Your task to perform on an android device: Go to eBay Image 0: 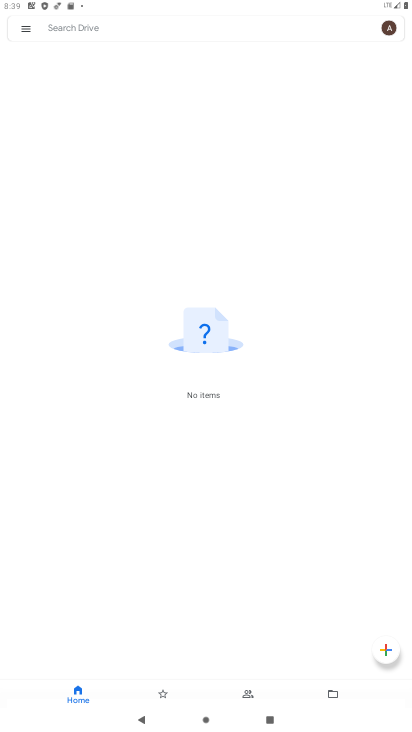
Step 0: press home button
Your task to perform on an android device: Go to eBay Image 1: 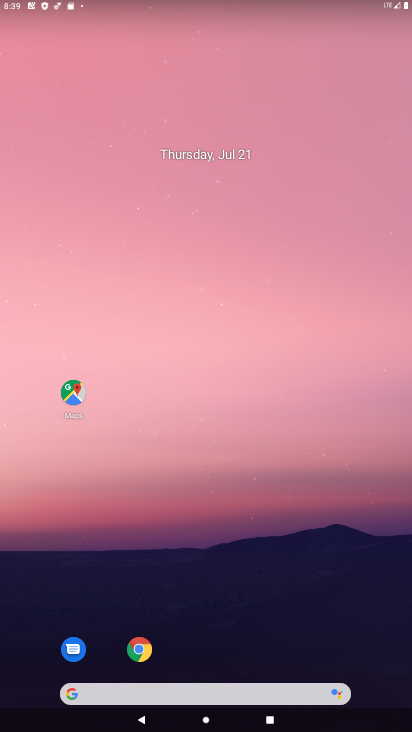
Step 1: drag from (201, 665) to (227, 103)
Your task to perform on an android device: Go to eBay Image 2: 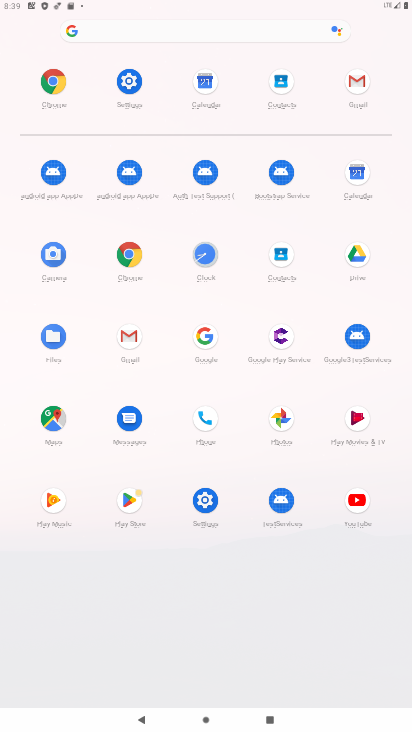
Step 2: click (141, 258)
Your task to perform on an android device: Go to eBay Image 3: 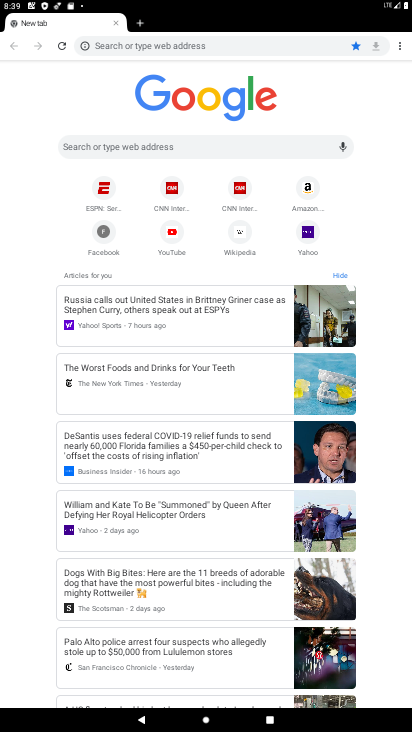
Step 3: click (203, 141)
Your task to perform on an android device: Go to eBay Image 4: 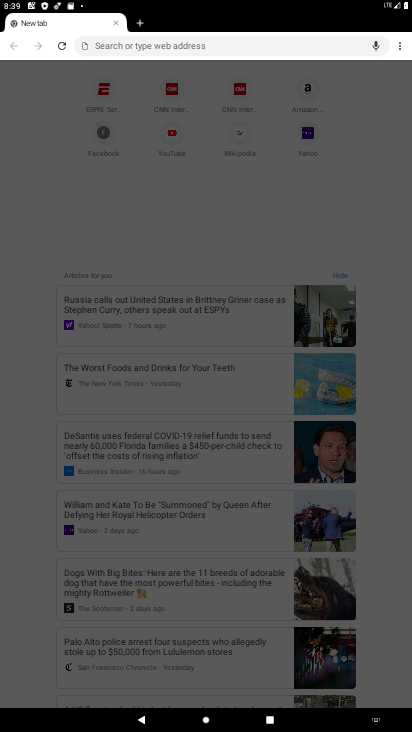
Step 4: type "ebay"
Your task to perform on an android device: Go to eBay Image 5: 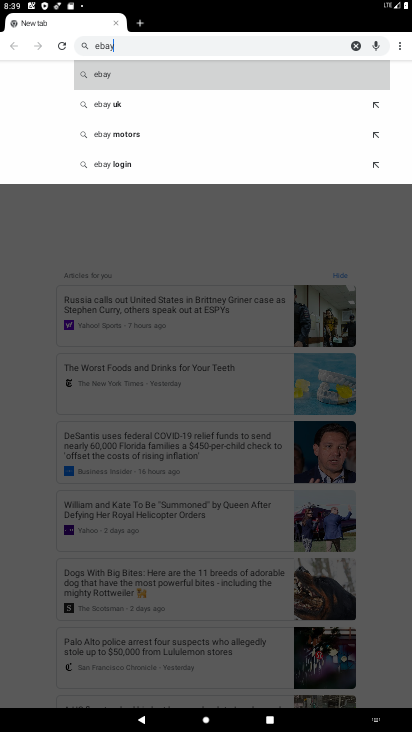
Step 5: click (140, 82)
Your task to perform on an android device: Go to eBay Image 6: 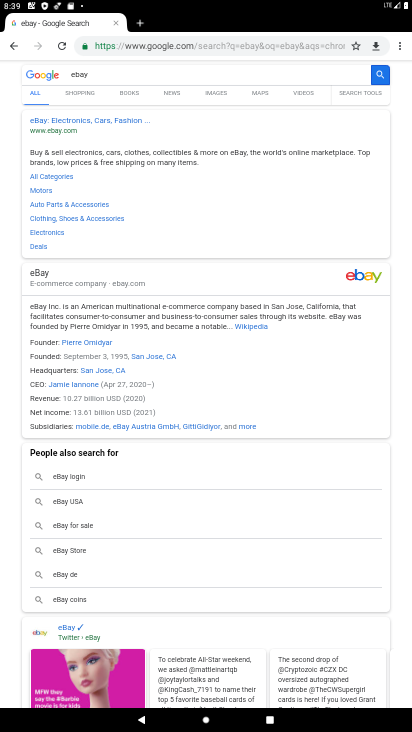
Step 6: task complete